Your task to perform on an android device: toggle translation in the chrome app Image 0: 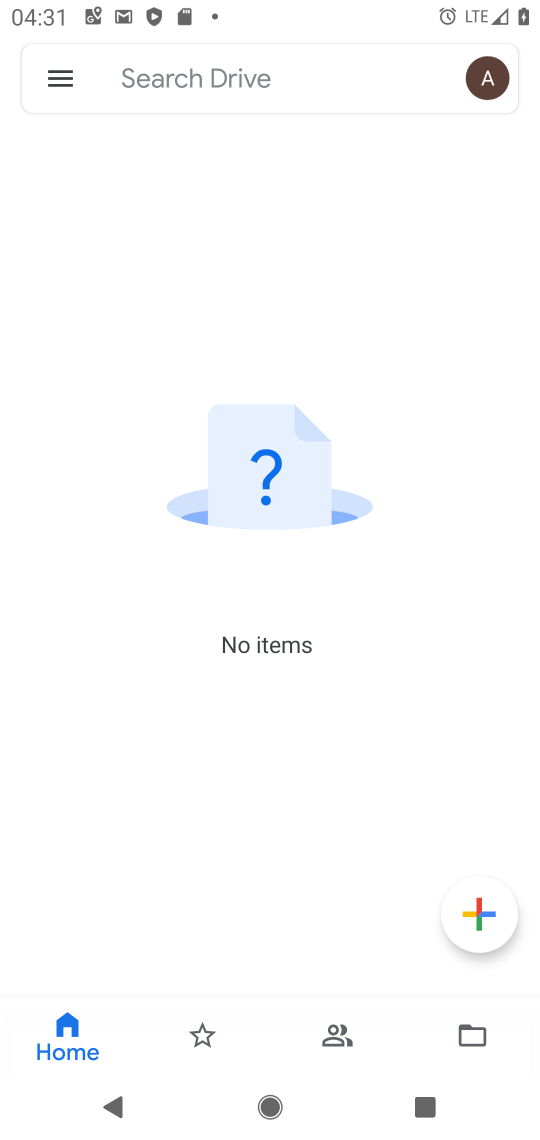
Step 0: press back button
Your task to perform on an android device: toggle translation in the chrome app Image 1: 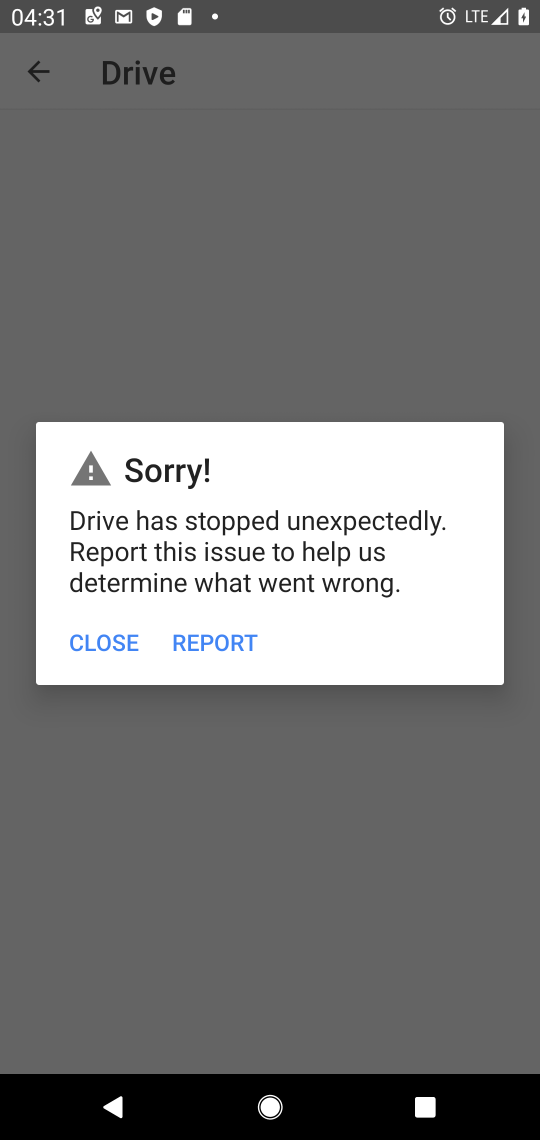
Step 1: press home button
Your task to perform on an android device: toggle translation in the chrome app Image 2: 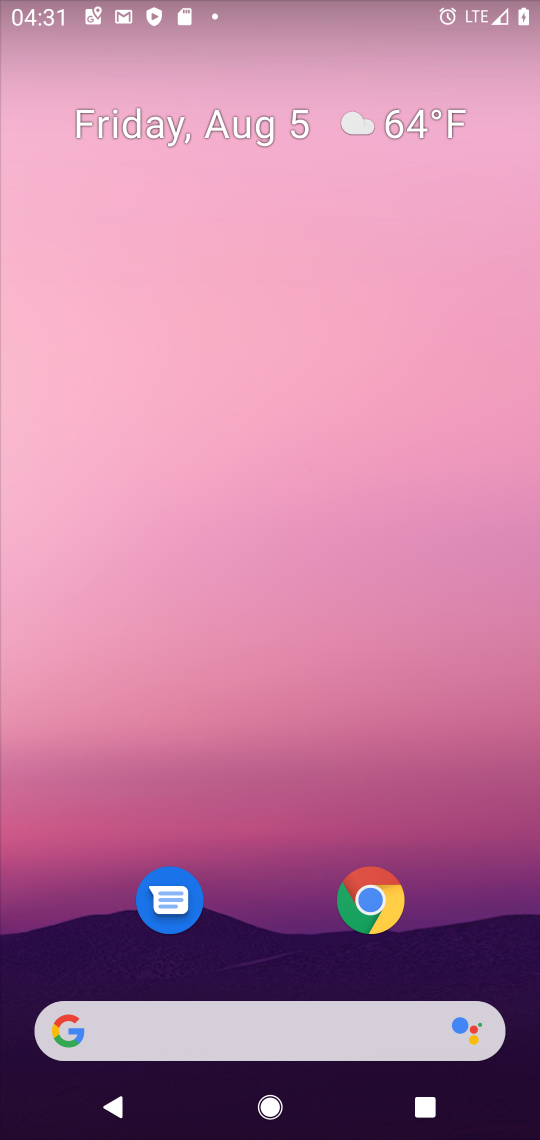
Step 2: click (369, 892)
Your task to perform on an android device: toggle translation in the chrome app Image 3: 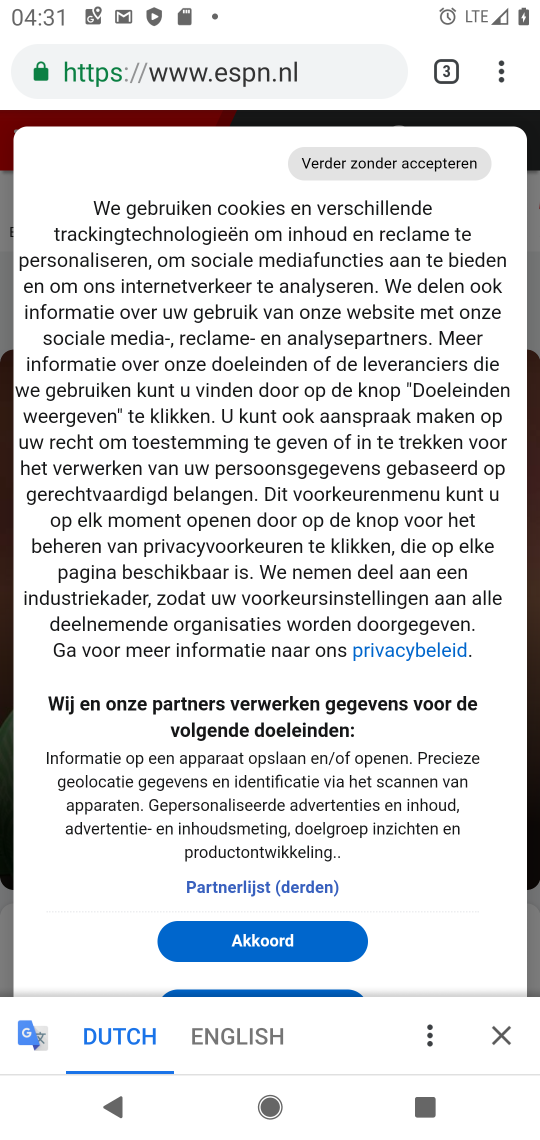
Step 3: click (371, 889)
Your task to perform on an android device: toggle translation in the chrome app Image 4: 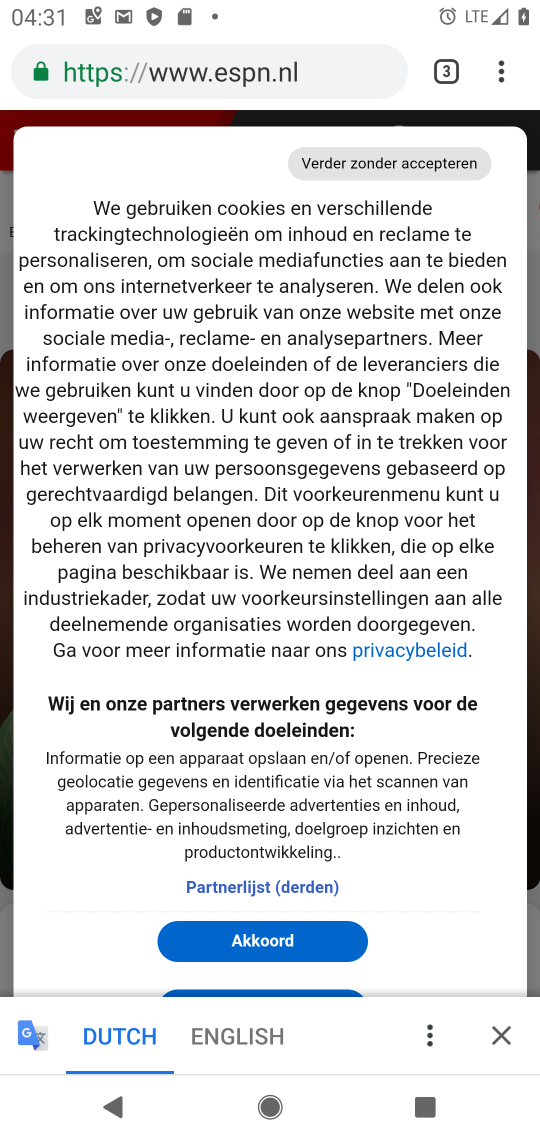
Step 4: drag from (507, 65) to (277, 865)
Your task to perform on an android device: toggle translation in the chrome app Image 5: 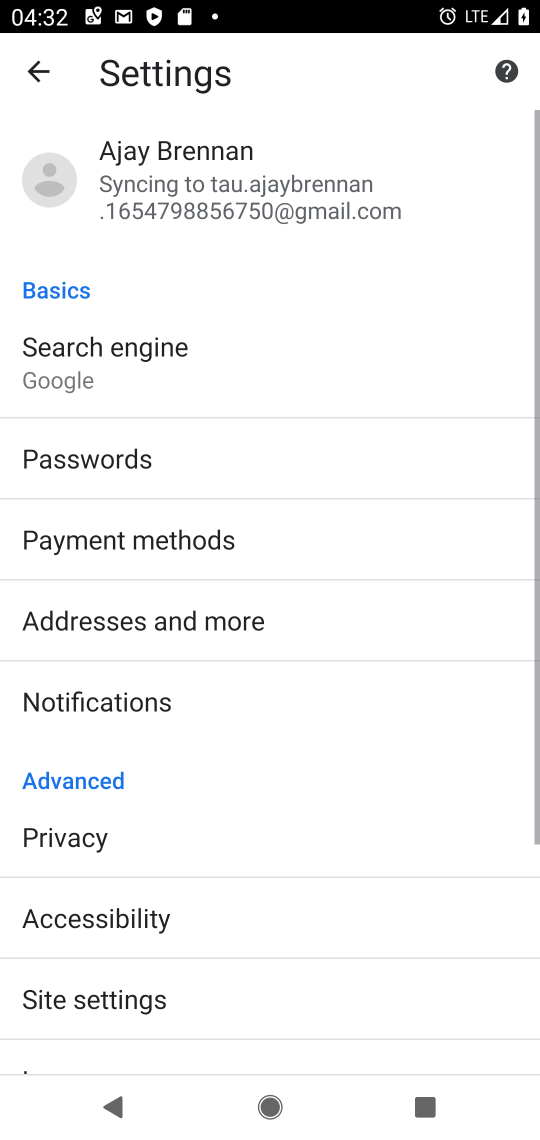
Step 5: drag from (259, 955) to (437, 156)
Your task to perform on an android device: toggle translation in the chrome app Image 6: 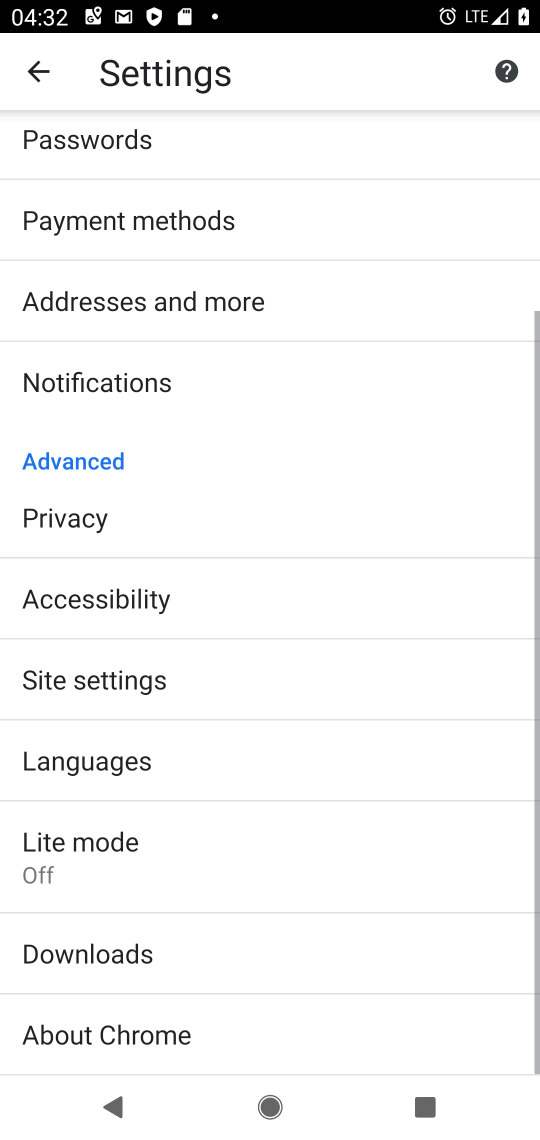
Step 6: click (80, 769)
Your task to perform on an android device: toggle translation in the chrome app Image 7: 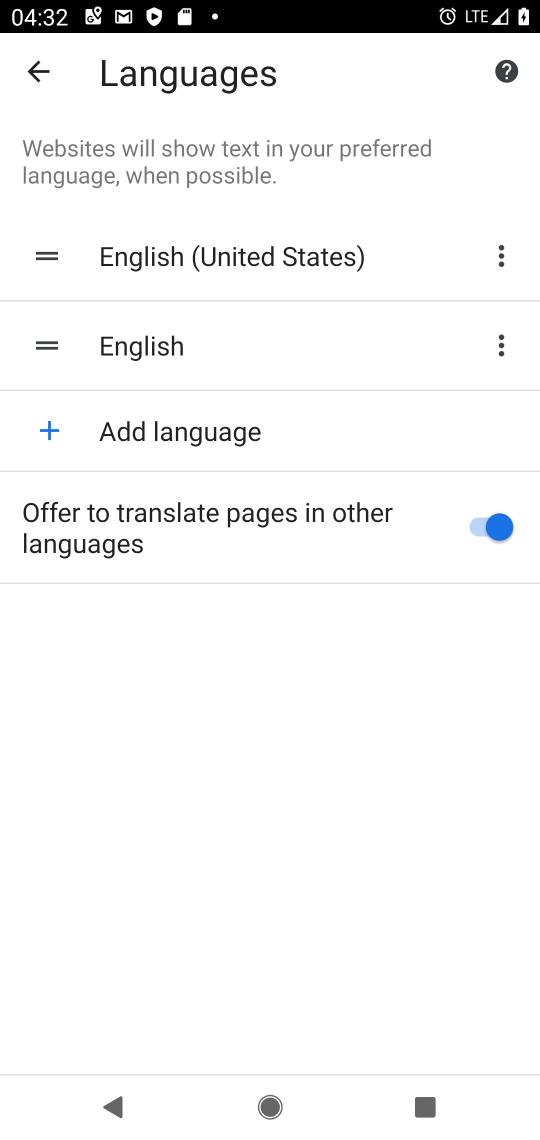
Step 7: click (496, 527)
Your task to perform on an android device: toggle translation in the chrome app Image 8: 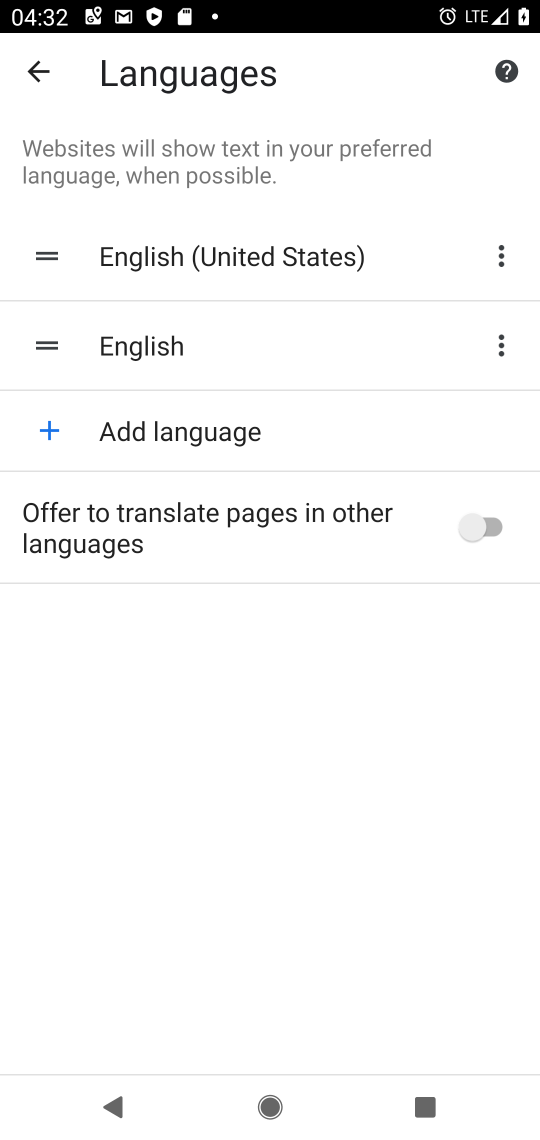
Step 8: task complete